Your task to perform on an android device: Open network settings Image 0: 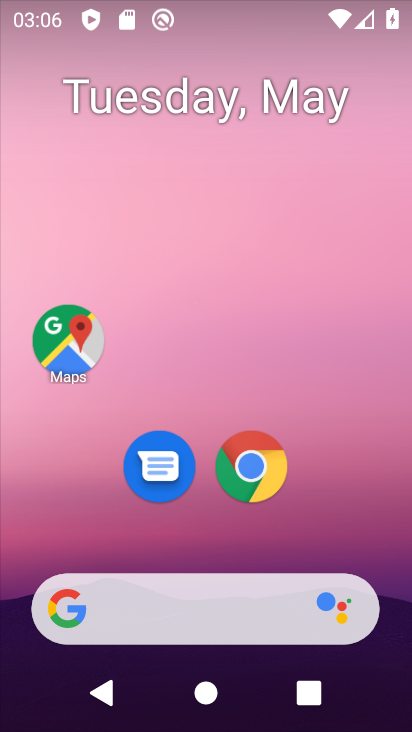
Step 0: drag from (338, 416) to (322, 211)
Your task to perform on an android device: Open network settings Image 1: 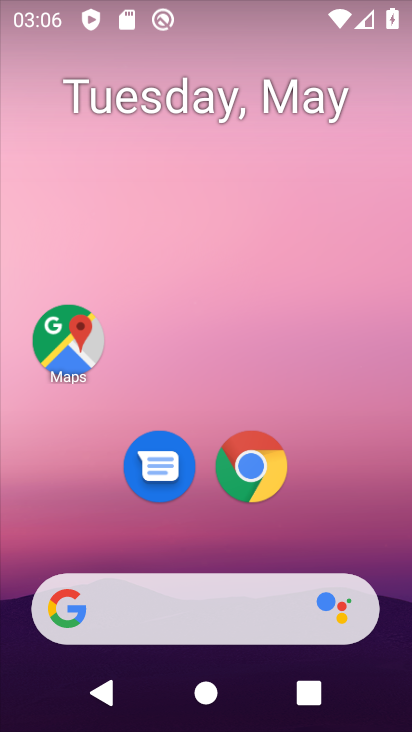
Step 1: drag from (283, 556) to (295, 324)
Your task to perform on an android device: Open network settings Image 2: 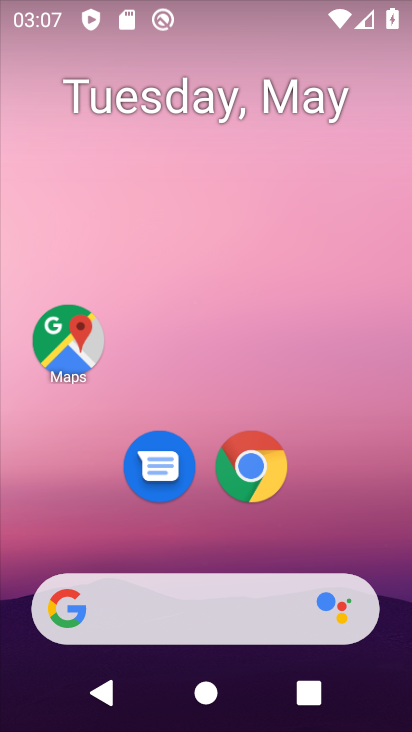
Step 2: drag from (298, 534) to (359, 198)
Your task to perform on an android device: Open network settings Image 3: 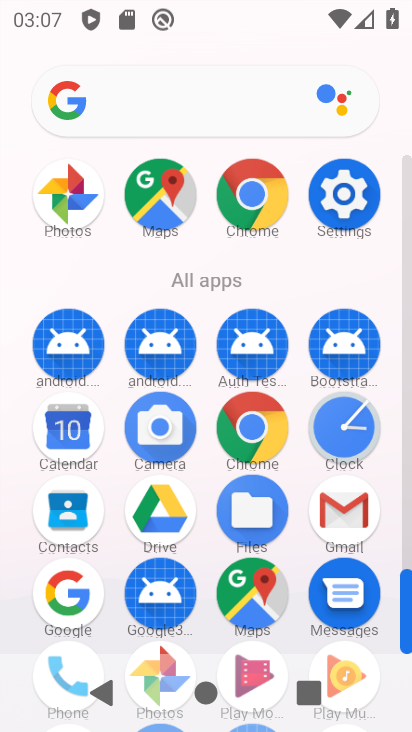
Step 3: click (357, 176)
Your task to perform on an android device: Open network settings Image 4: 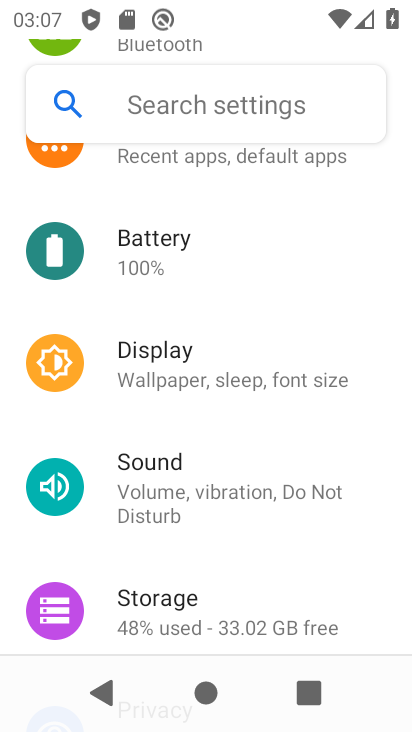
Step 4: drag from (240, 228) to (257, 608)
Your task to perform on an android device: Open network settings Image 5: 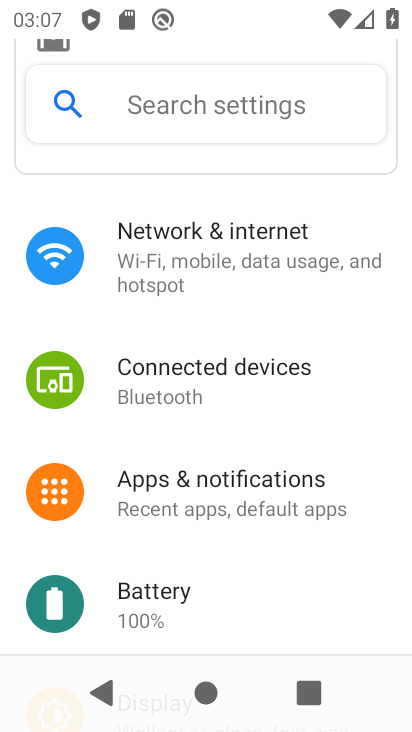
Step 5: click (178, 248)
Your task to perform on an android device: Open network settings Image 6: 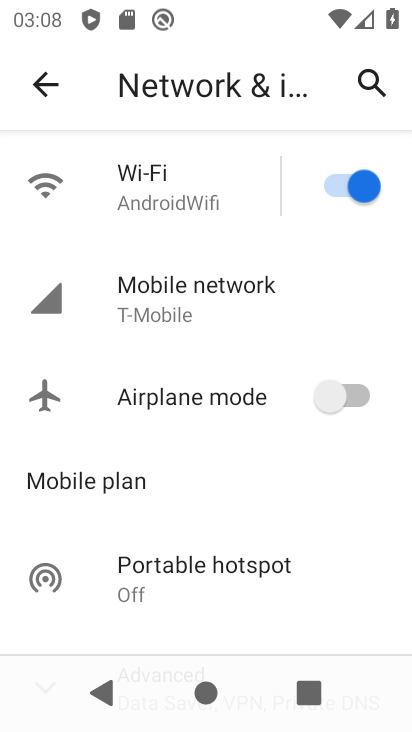
Step 6: task complete